Your task to perform on an android device: turn on the 12-hour format for clock Image 0: 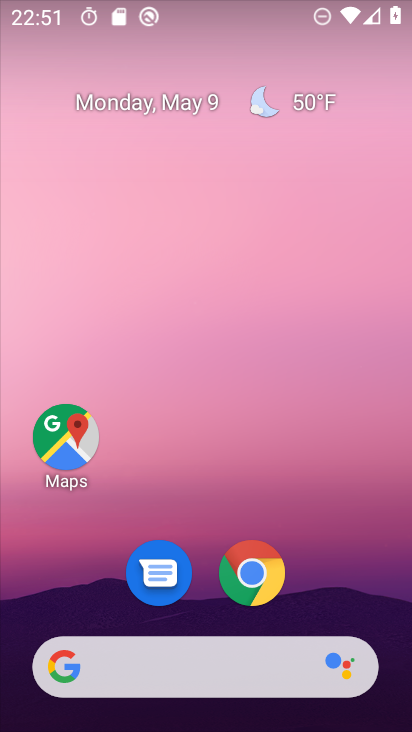
Step 0: drag from (379, 538) to (300, 78)
Your task to perform on an android device: turn on the 12-hour format for clock Image 1: 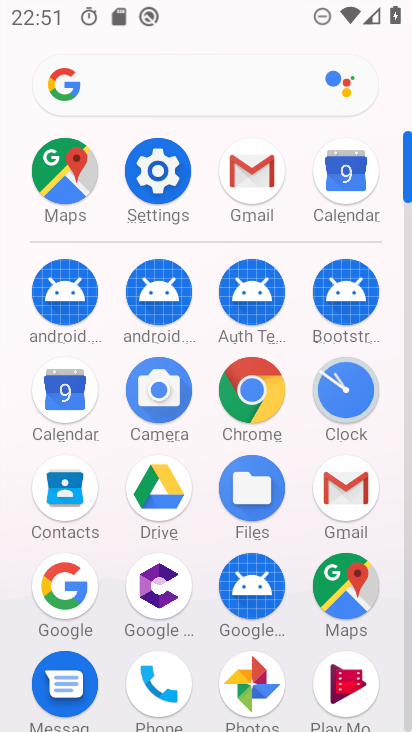
Step 1: click (341, 394)
Your task to perform on an android device: turn on the 12-hour format for clock Image 2: 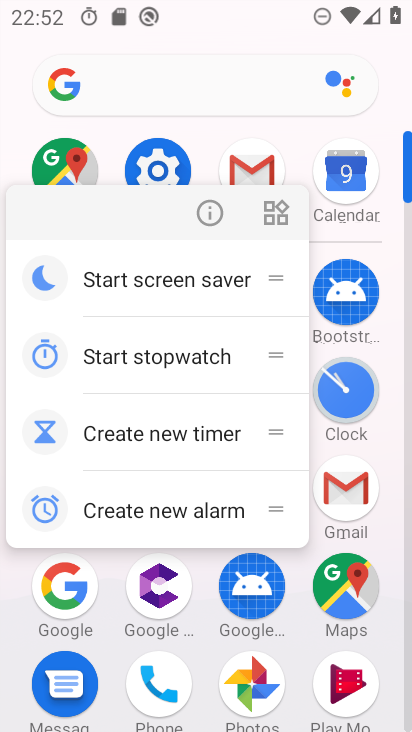
Step 2: click (340, 392)
Your task to perform on an android device: turn on the 12-hour format for clock Image 3: 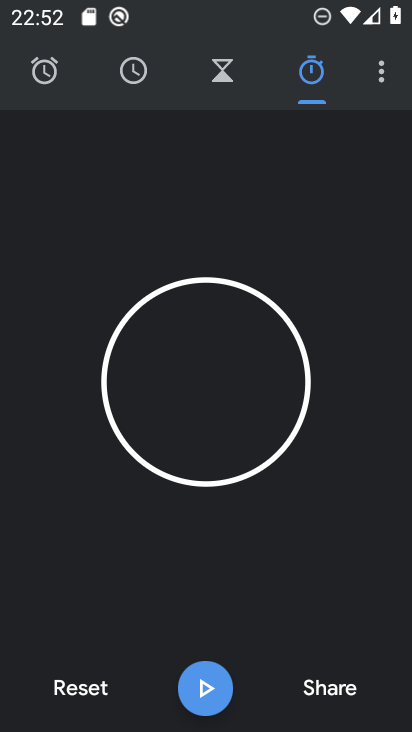
Step 3: click (379, 67)
Your task to perform on an android device: turn on the 12-hour format for clock Image 4: 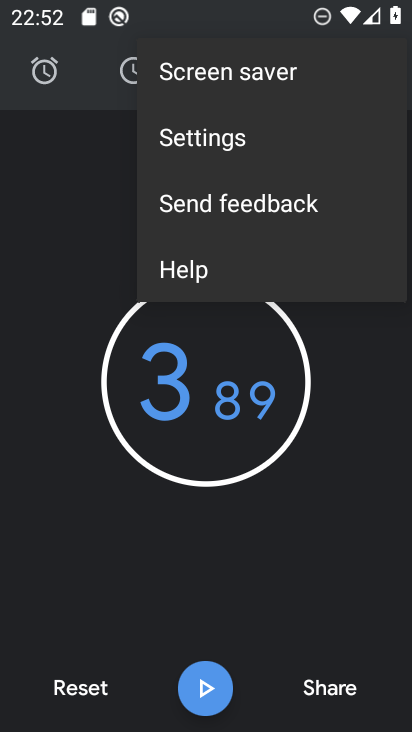
Step 4: click (233, 132)
Your task to perform on an android device: turn on the 12-hour format for clock Image 5: 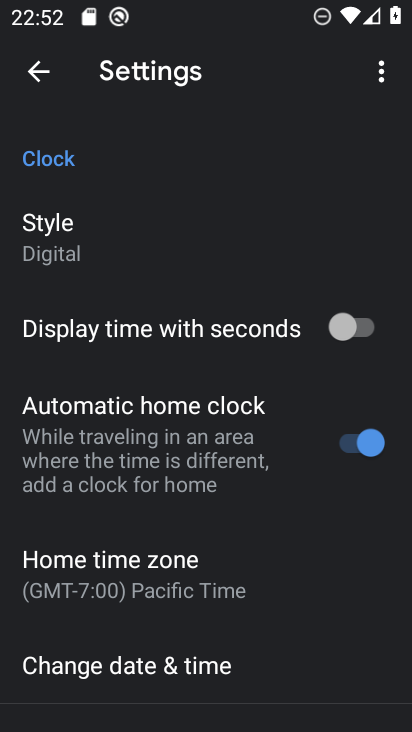
Step 5: drag from (223, 622) to (266, 124)
Your task to perform on an android device: turn on the 12-hour format for clock Image 6: 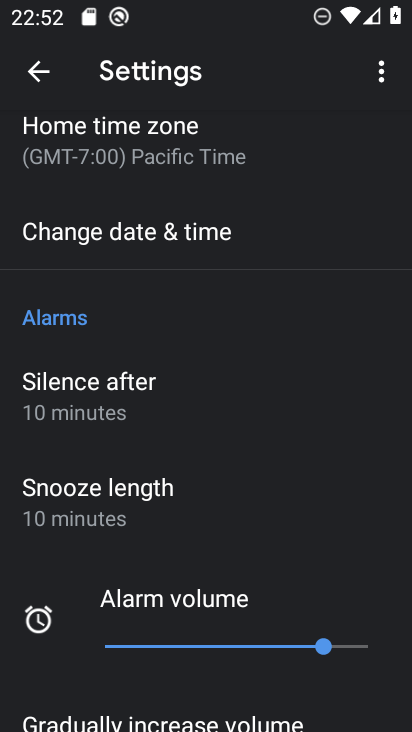
Step 6: drag from (170, 492) to (292, 93)
Your task to perform on an android device: turn on the 12-hour format for clock Image 7: 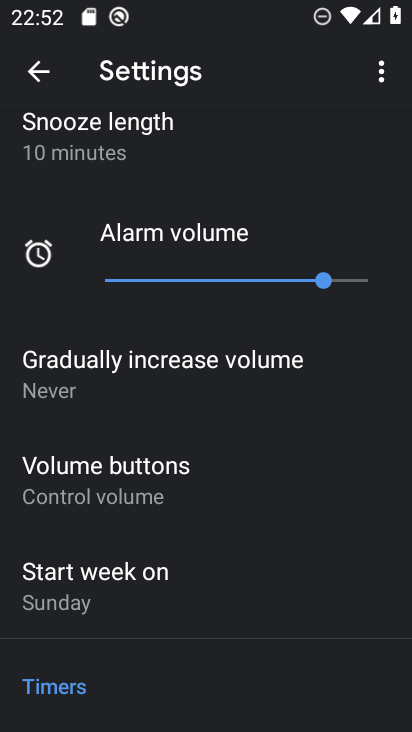
Step 7: drag from (208, 182) to (250, 594)
Your task to perform on an android device: turn on the 12-hour format for clock Image 8: 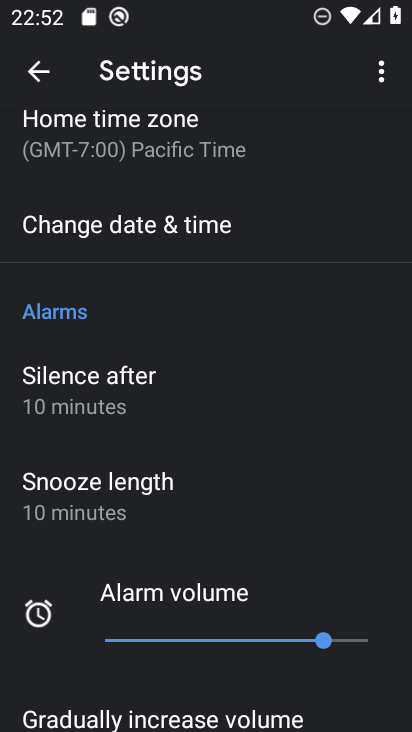
Step 8: click (189, 224)
Your task to perform on an android device: turn on the 12-hour format for clock Image 9: 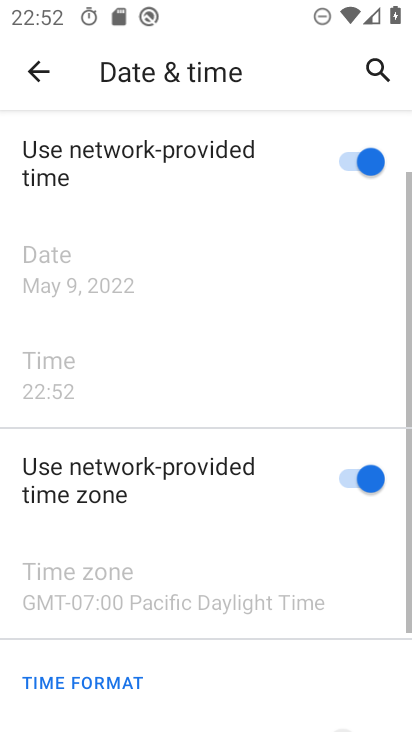
Step 9: drag from (231, 680) to (232, 89)
Your task to perform on an android device: turn on the 12-hour format for clock Image 10: 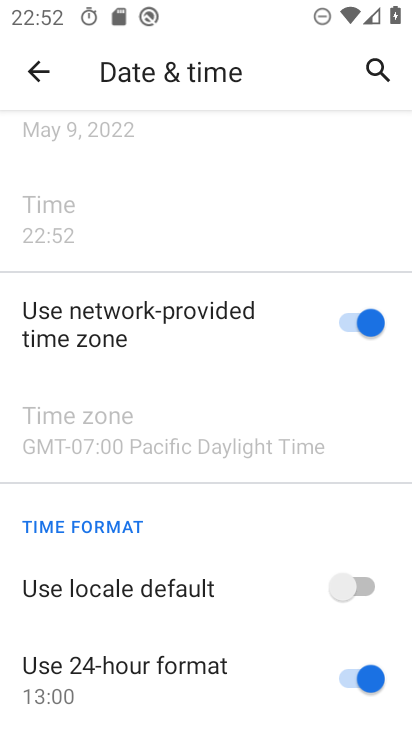
Step 10: click (350, 576)
Your task to perform on an android device: turn on the 12-hour format for clock Image 11: 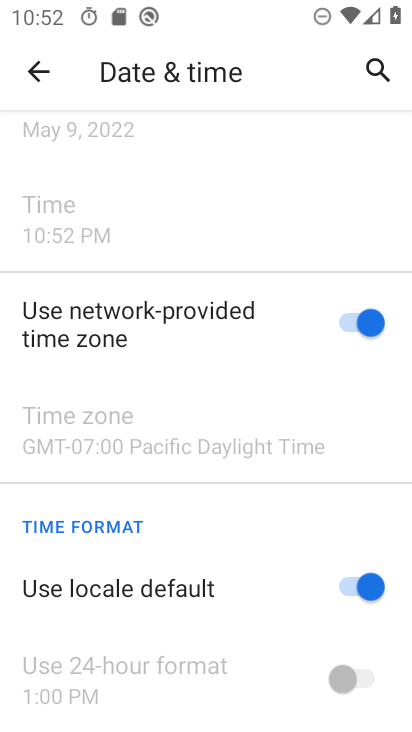
Step 11: task complete